Your task to perform on an android device: Turn off the flashlight Image 0: 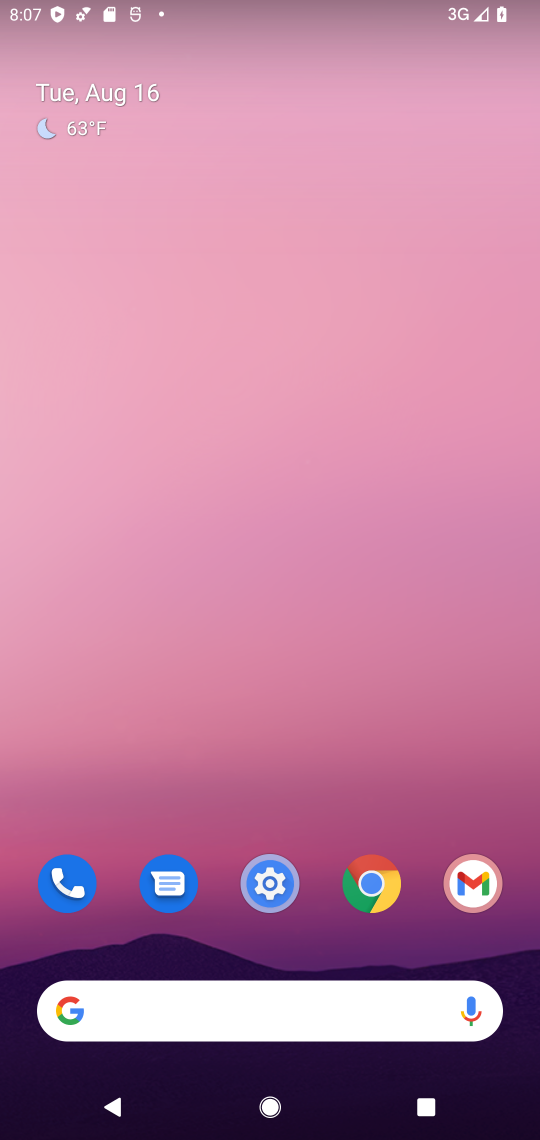
Step 0: drag from (486, 13) to (375, 1112)
Your task to perform on an android device: Turn off the flashlight Image 1: 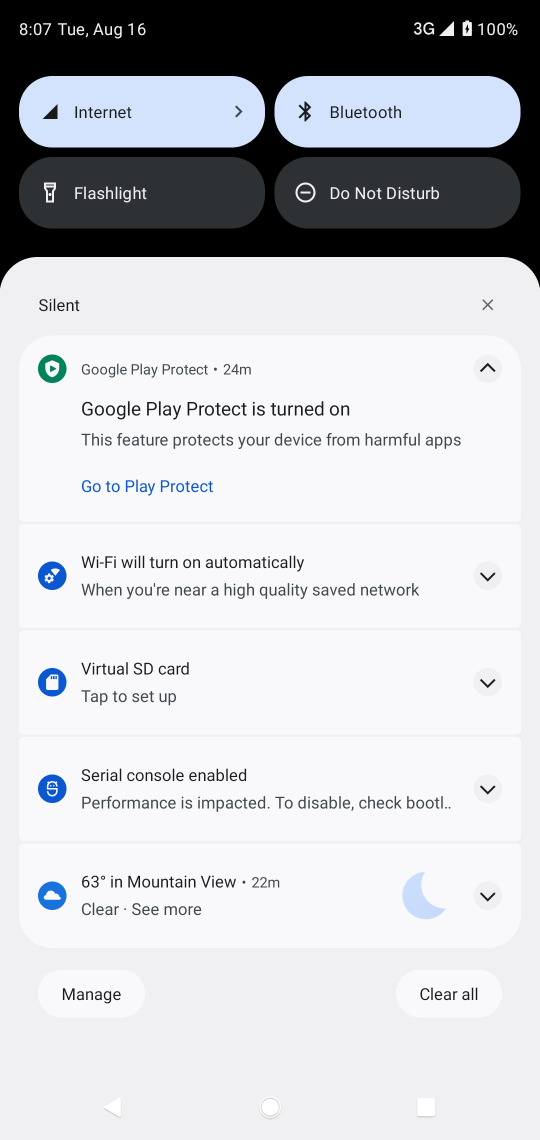
Step 1: task complete